Your task to perform on an android device: find which apps use the phone's location Image 0: 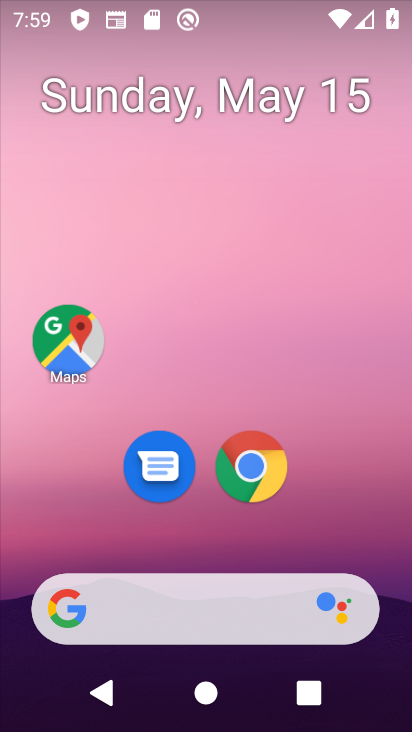
Step 0: drag from (214, 535) to (217, 6)
Your task to perform on an android device: find which apps use the phone's location Image 1: 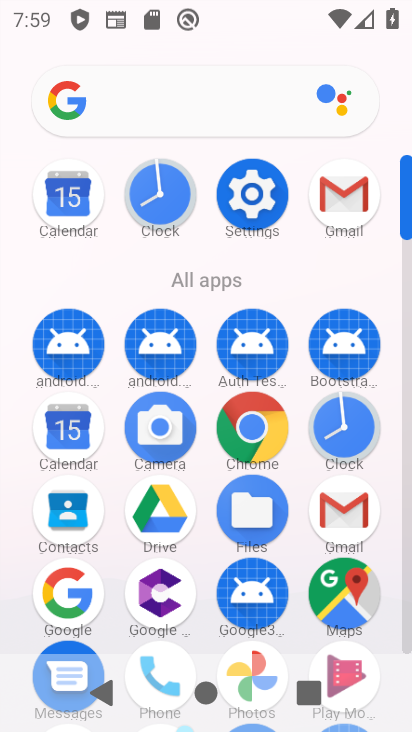
Step 1: click (244, 217)
Your task to perform on an android device: find which apps use the phone's location Image 2: 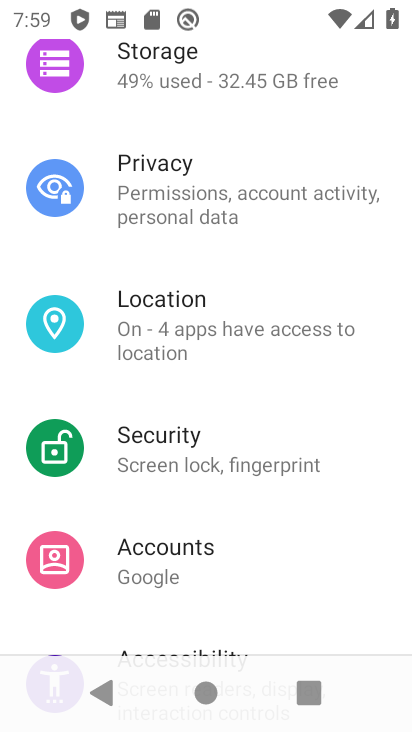
Step 2: click (193, 329)
Your task to perform on an android device: find which apps use the phone's location Image 3: 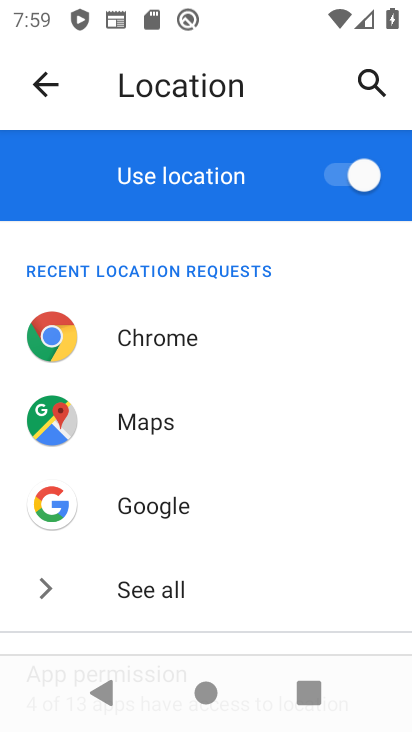
Step 3: drag from (279, 535) to (230, 76)
Your task to perform on an android device: find which apps use the phone's location Image 4: 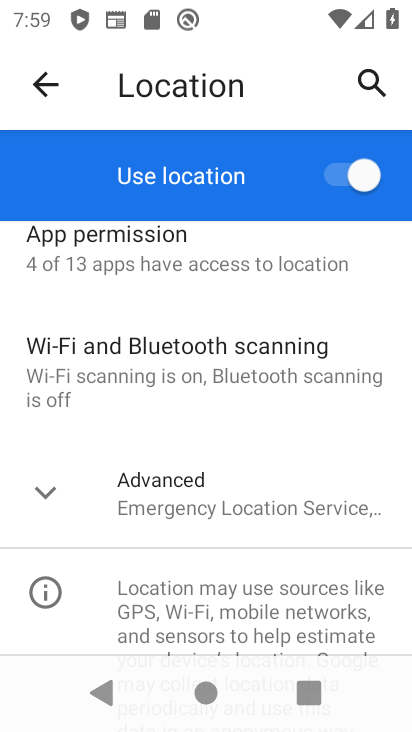
Step 4: click (149, 272)
Your task to perform on an android device: find which apps use the phone's location Image 5: 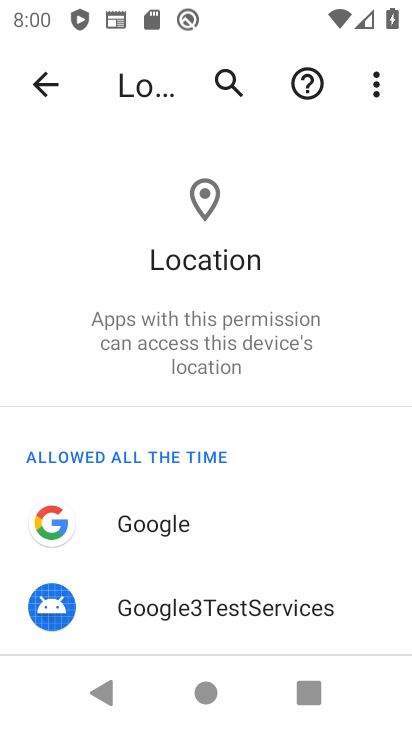
Step 5: click (183, 66)
Your task to perform on an android device: find which apps use the phone's location Image 6: 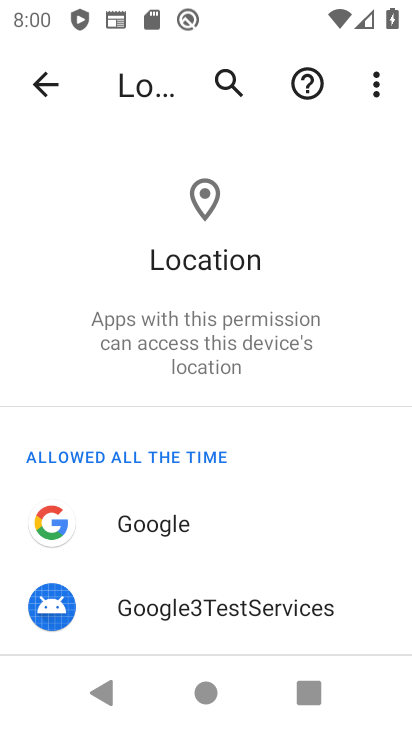
Step 6: task complete